Your task to perform on an android device: Open notification settings Image 0: 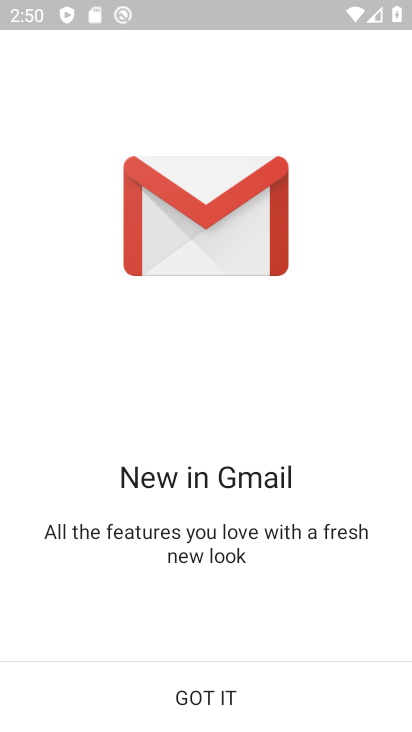
Step 0: press home button
Your task to perform on an android device: Open notification settings Image 1: 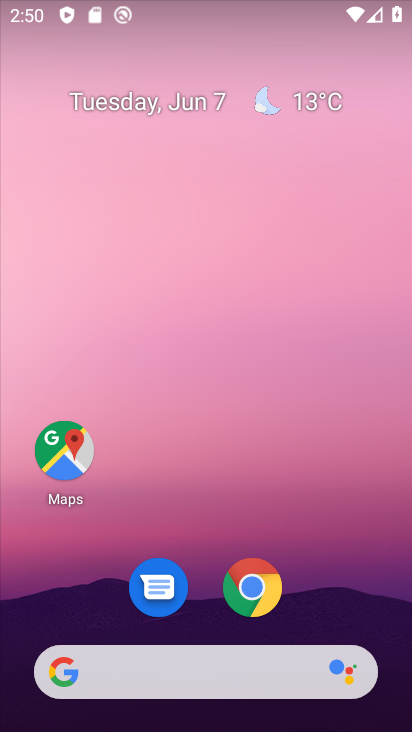
Step 1: drag from (311, 587) to (278, 155)
Your task to perform on an android device: Open notification settings Image 2: 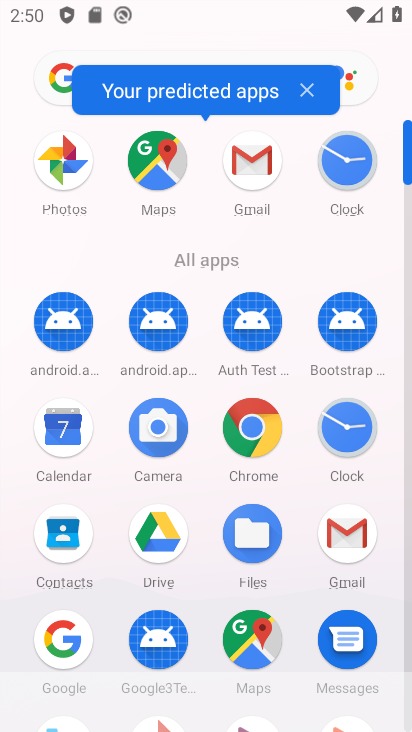
Step 2: drag from (213, 482) to (187, 197)
Your task to perform on an android device: Open notification settings Image 3: 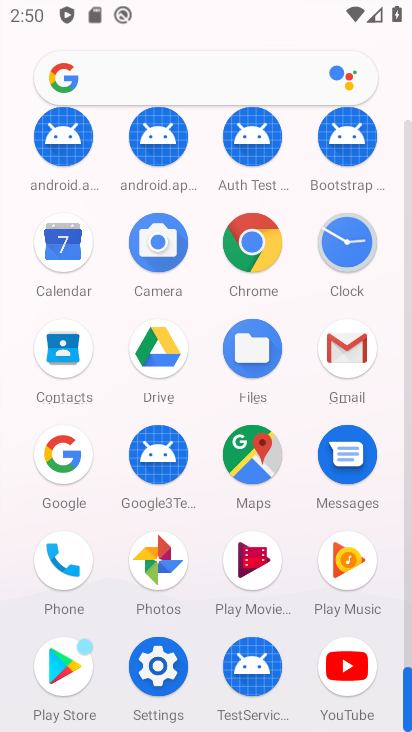
Step 3: click (167, 653)
Your task to perform on an android device: Open notification settings Image 4: 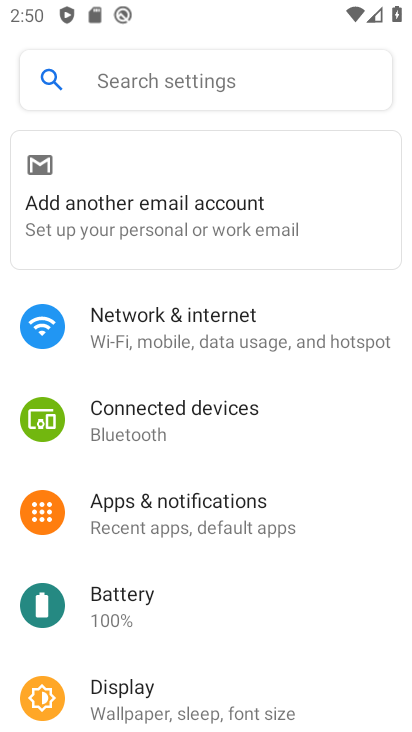
Step 4: click (171, 498)
Your task to perform on an android device: Open notification settings Image 5: 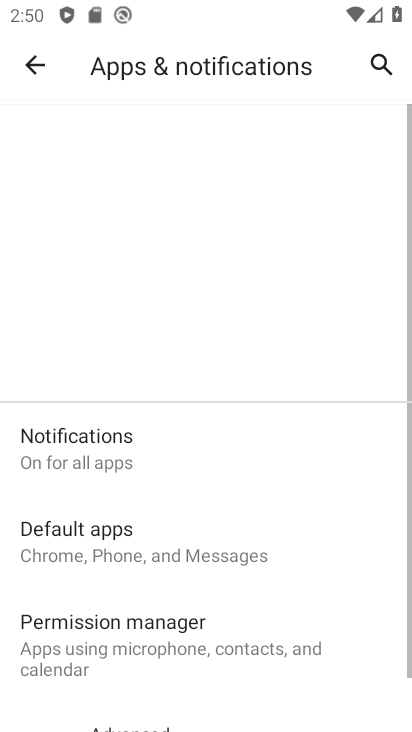
Step 5: click (132, 461)
Your task to perform on an android device: Open notification settings Image 6: 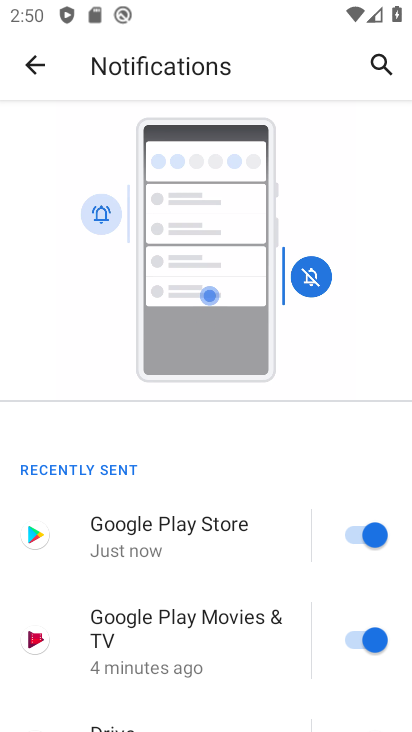
Step 6: drag from (201, 598) to (175, 157)
Your task to perform on an android device: Open notification settings Image 7: 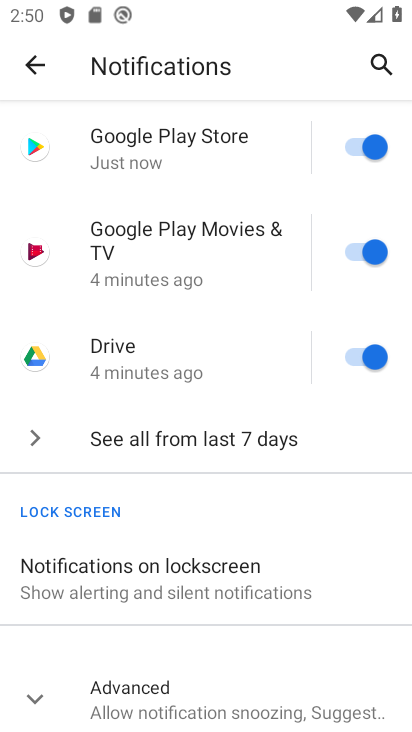
Step 7: drag from (240, 672) to (176, 403)
Your task to perform on an android device: Open notification settings Image 8: 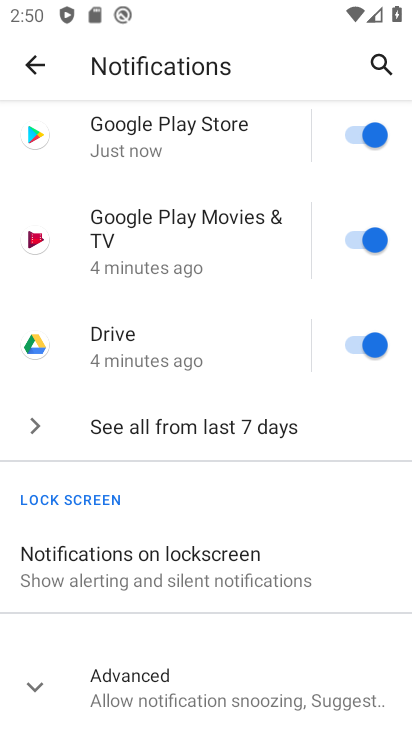
Step 8: click (136, 674)
Your task to perform on an android device: Open notification settings Image 9: 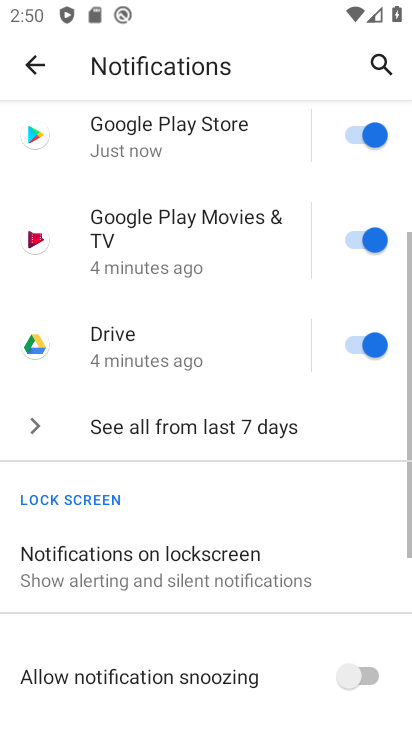
Step 9: task complete